Your task to perform on an android device: star an email in the gmail app Image 0: 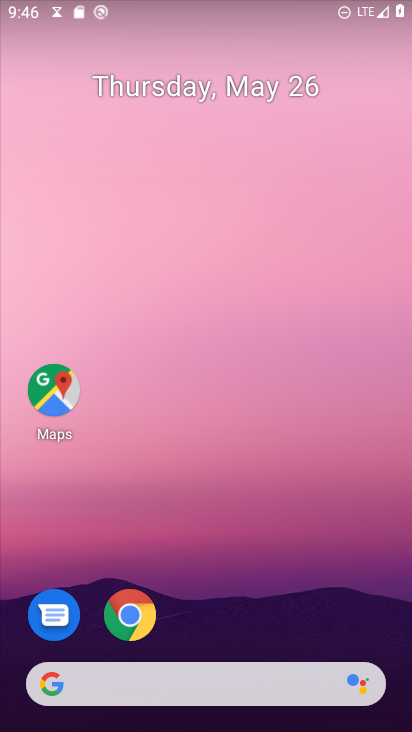
Step 0: drag from (293, 577) to (245, 185)
Your task to perform on an android device: star an email in the gmail app Image 1: 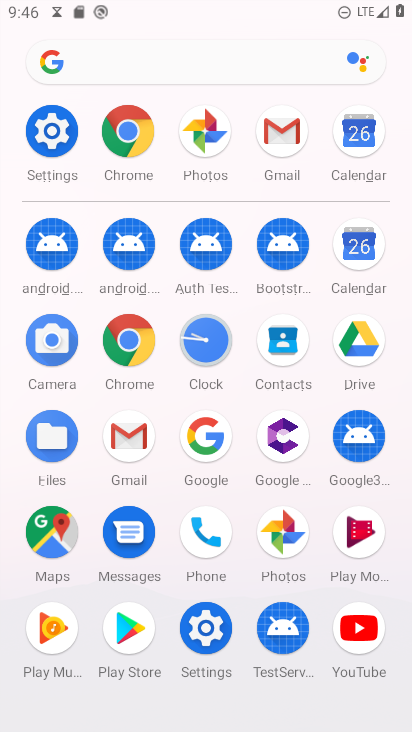
Step 1: click (282, 133)
Your task to perform on an android device: star an email in the gmail app Image 2: 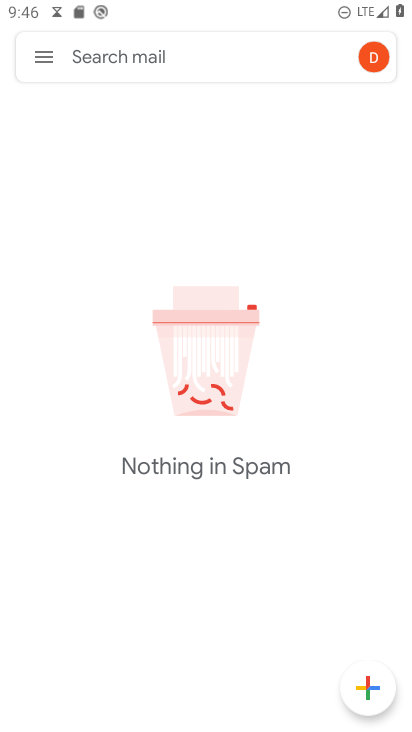
Step 2: click (43, 46)
Your task to perform on an android device: star an email in the gmail app Image 3: 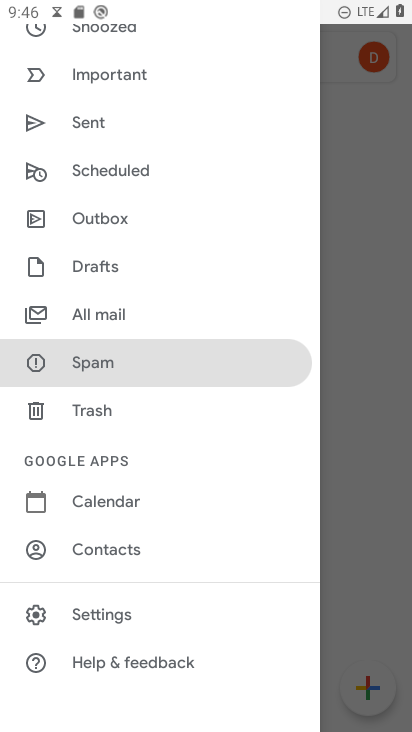
Step 3: drag from (140, 87) to (193, 522)
Your task to perform on an android device: star an email in the gmail app Image 4: 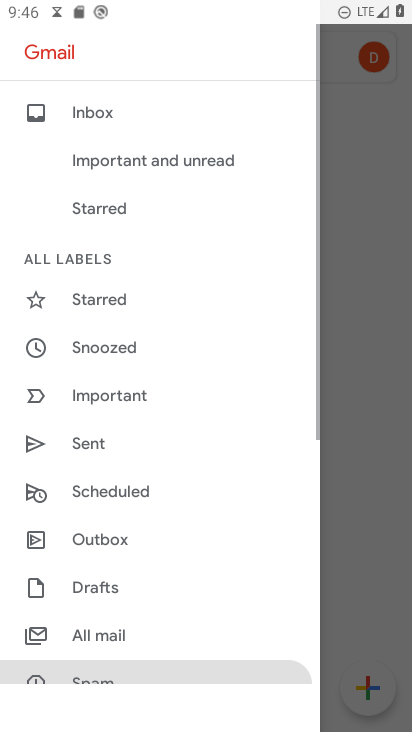
Step 4: drag from (135, 247) to (121, 516)
Your task to perform on an android device: star an email in the gmail app Image 5: 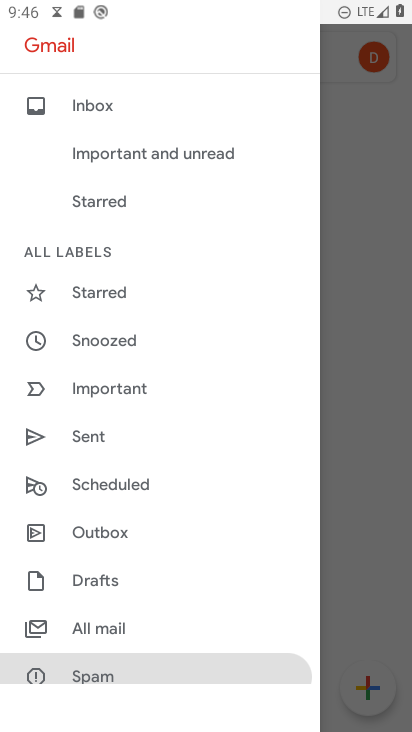
Step 5: click (93, 273)
Your task to perform on an android device: star an email in the gmail app Image 6: 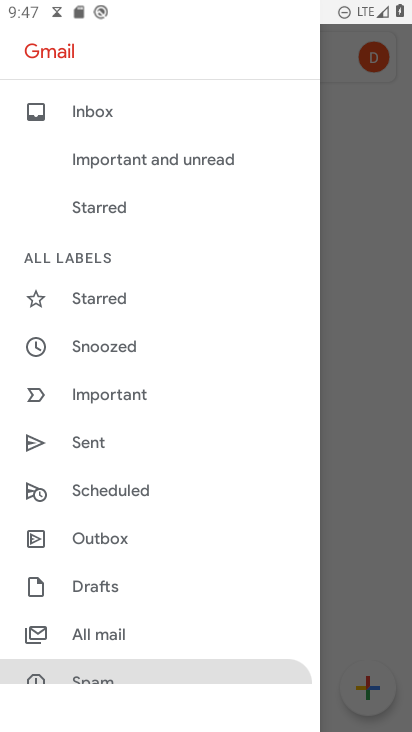
Step 6: click (106, 290)
Your task to perform on an android device: star an email in the gmail app Image 7: 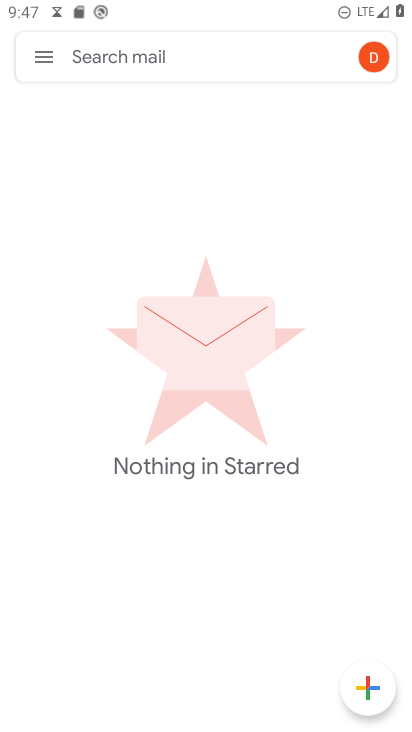
Step 7: task complete